Your task to perform on an android device: turn on sleep mode Image 0: 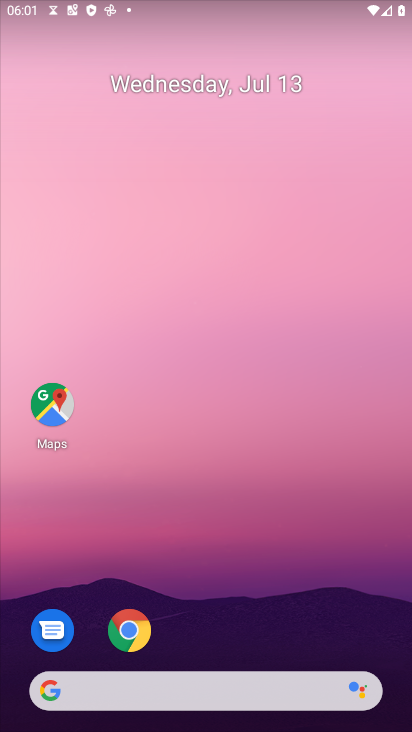
Step 0: drag from (265, 688) to (239, 97)
Your task to perform on an android device: turn on sleep mode Image 1: 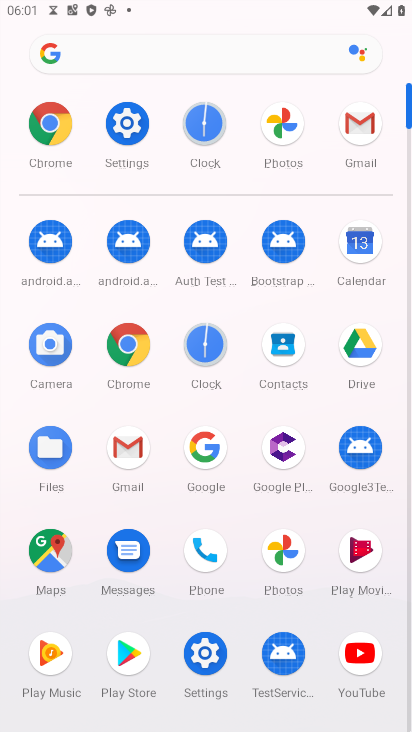
Step 1: click (122, 131)
Your task to perform on an android device: turn on sleep mode Image 2: 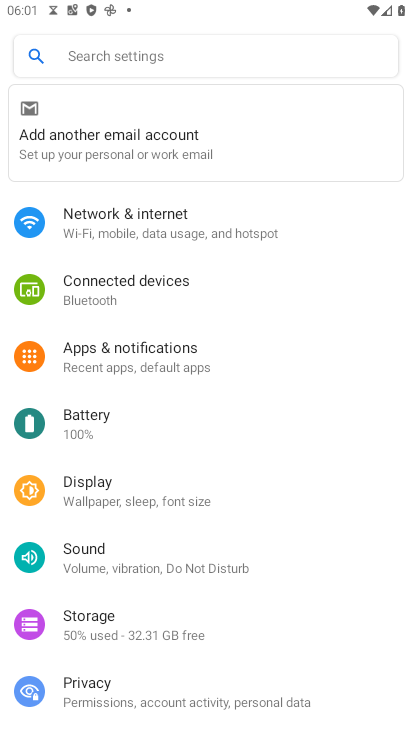
Step 2: click (150, 503)
Your task to perform on an android device: turn on sleep mode Image 3: 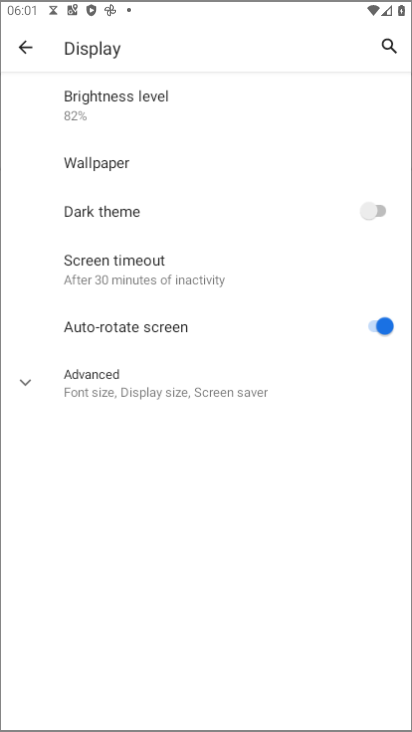
Step 3: task complete